Your task to perform on an android device: allow cookies in the chrome app Image 0: 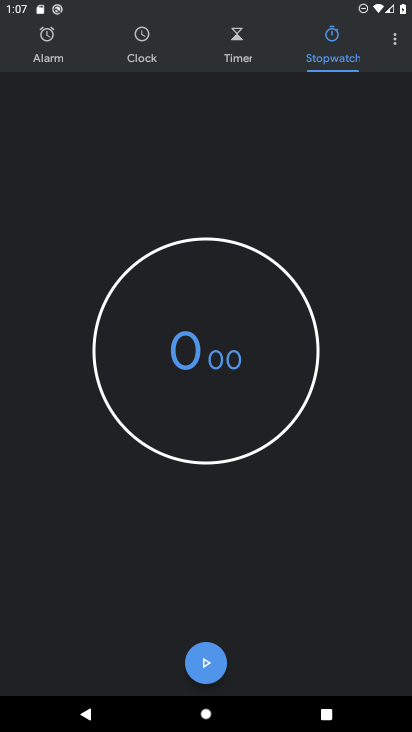
Step 0: press home button
Your task to perform on an android device: allow cookies in the chrome app Image 1: 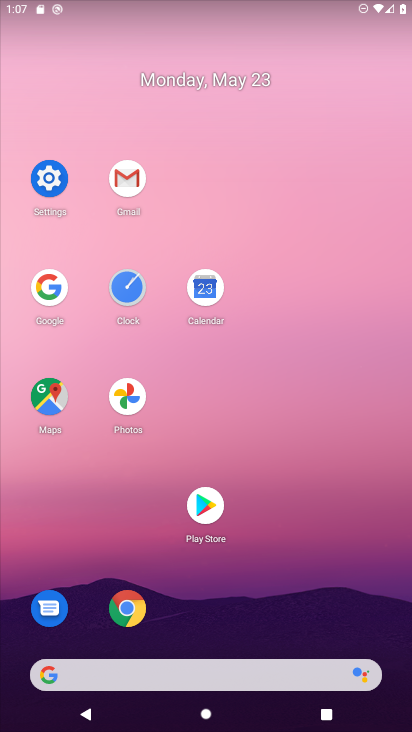
Step 1: click (128, 619)
Your task to perform on an android device: allow cookies in the chrome app Image 2: 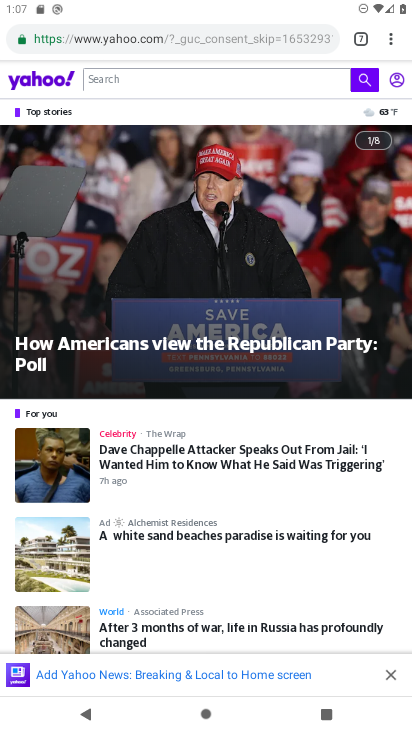
Step 2: click (393, 44)
Your task to perform on an android device: allow cookies in the chrome app Image 3: 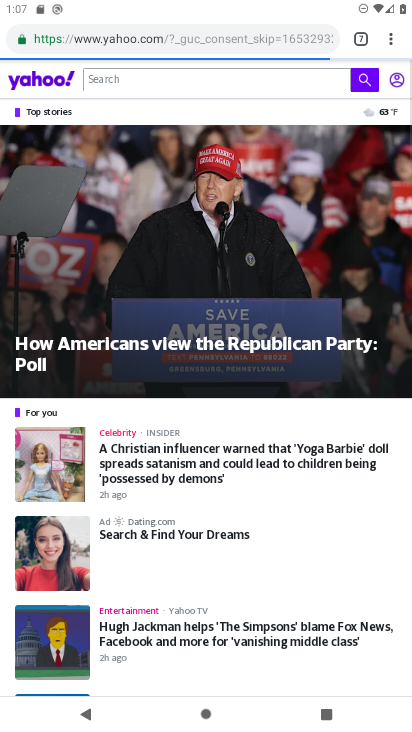
Step 3: click (391, 42)
Your task to perform on an android device: allow cookies in the chrome app Image 4: 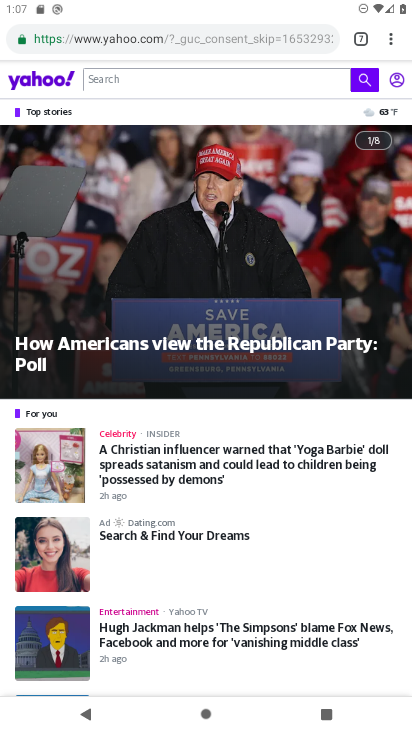
Step 4: click (402, 51)
Your task to perform on an android device: allow cookies in the chrome app Image 5: 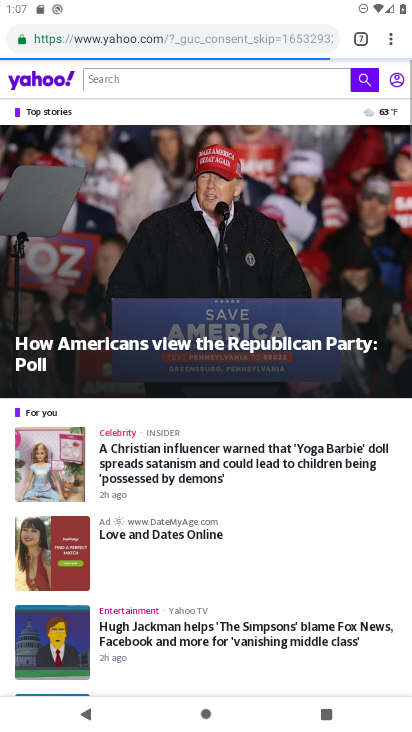
Step 5: click (390, 37)
Your task to perform on an android device: allow cookies in the chrome app Image 6: 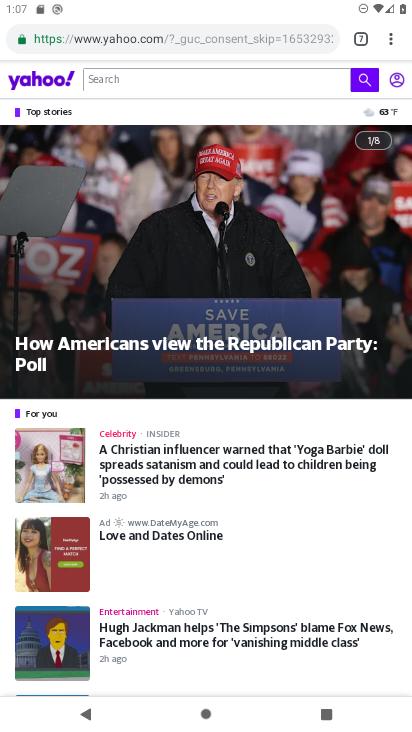
Step 6: click (390, 33)
Your task to perform on an android device: allow cookies in the chrome app Image 7: 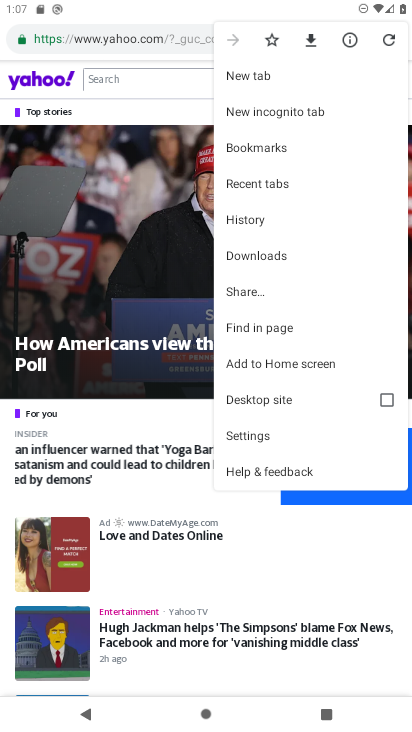
Step 7: drag from (305, 362) to (282, 121)
Your task to perform on an android device: allow cookies in the chrome app Image 8: 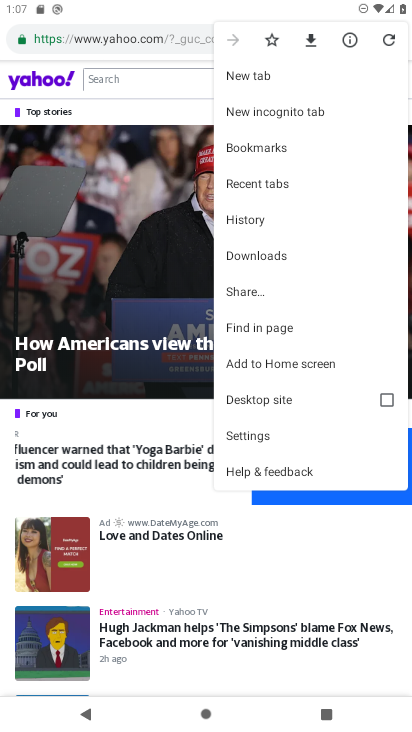
Step 8: click (281, 424)
Your task to perform on an android device: allow cookies in the chrome app Image 9: 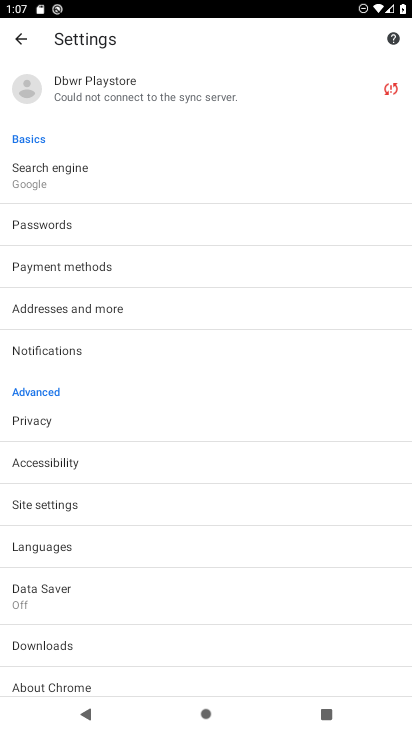
Step 9: drag from (117, 592) to (173, 255)
Your task to perform on an android device: allow cookies in the chrome app Image 10: 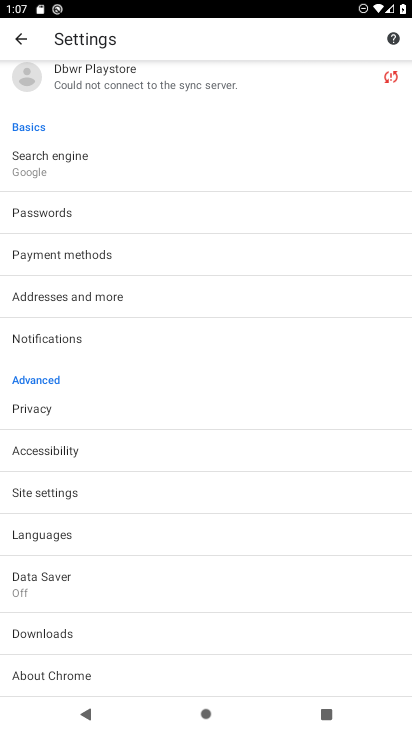
Step 10: click (75, 504)
Your task to perform on an android device: allow cookies in the chrome app Image 11: 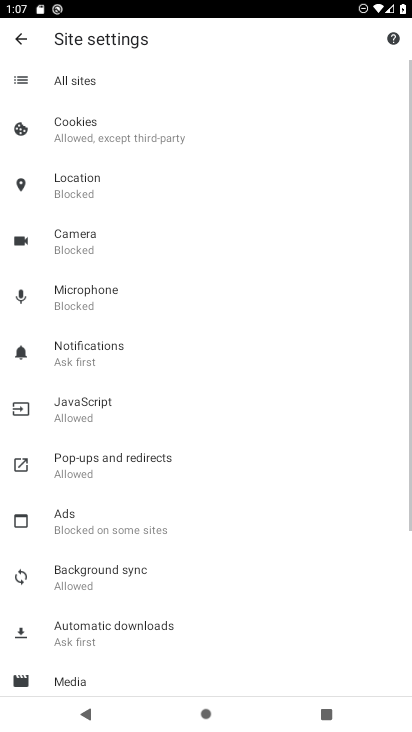
Step 11: click (251, 138)
Your task to perform on an android device: allow cookies in the chrome app Image 12: 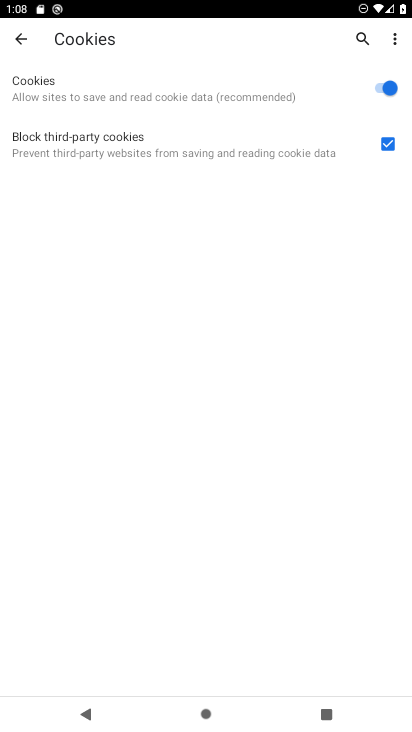
Step 12: task complete